Your task to perform on an android device: check the backup settings in the google photos Image 0: 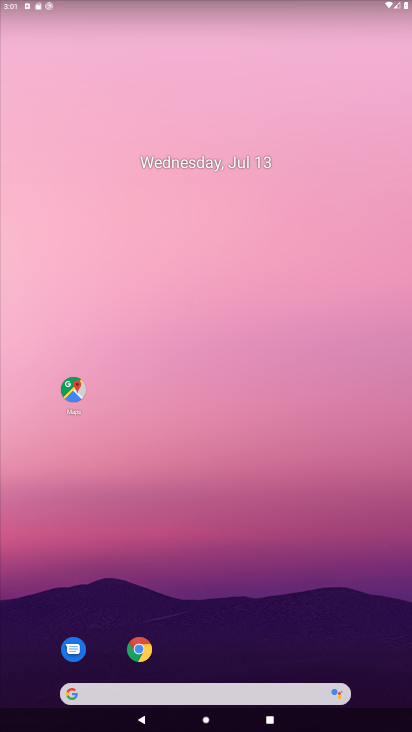
Step 0: press home button
Your task to perform on an android device: check the backup settings in the google photos Image 1: 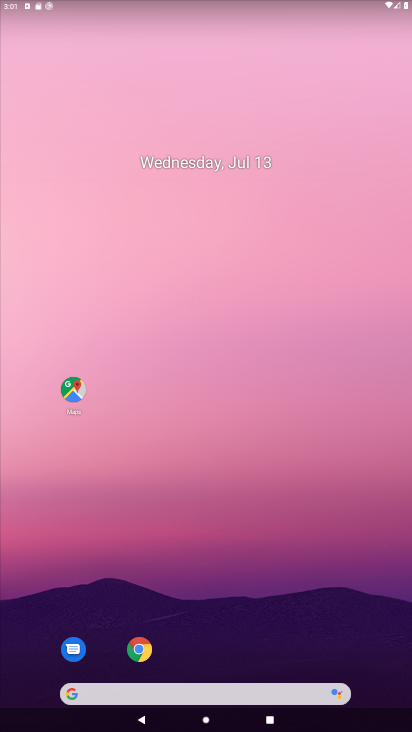
Step 1: drag from (206, 652) to (202, 81)
Your task to perform on an android device: check the backup settings in the google photos Image 2: 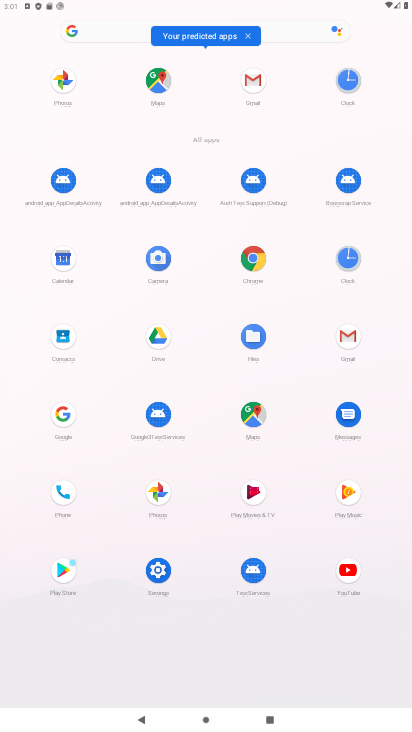
Step 2: click (151, 489)
Your task to perform on an android device: check the backup settings in the google photos Image 3: 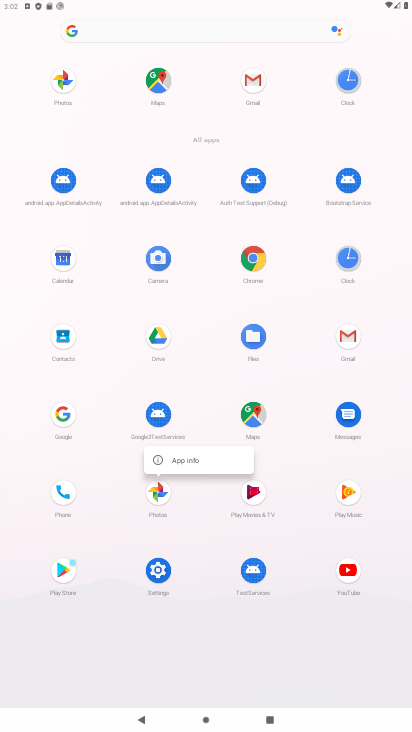
Step 3: click (152, 486)
Your task to perform on an android device: check the backup settings in the google photos Image 4: 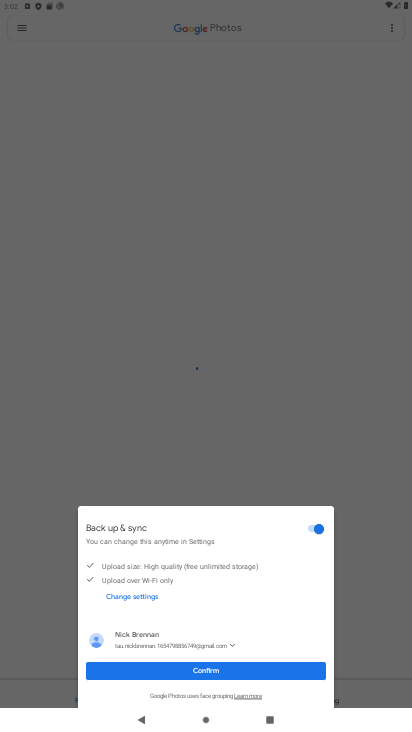
Step 4: click (188, 667)
Your task to perform on an android device: check the backup settings in the google photos Image 5: 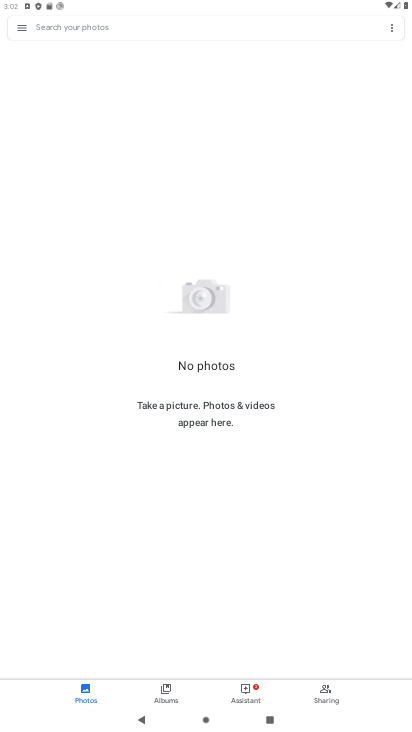
Step 5: click (20, 24)
Your task to perform on an android device: check the backup settings in the google photos Image 6: 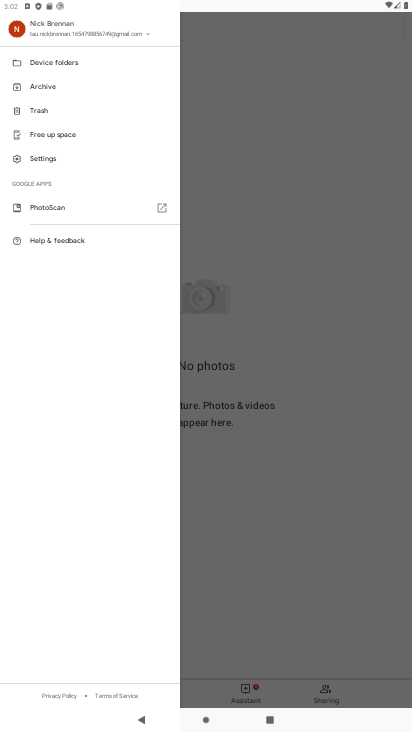
Step 6: click (58, 157)
Your task to perform on an android device: check the backup settings in the google photos Image 7: 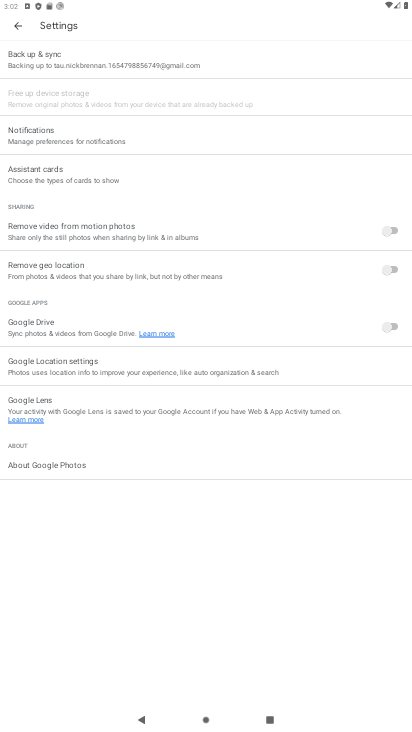
Step 7: task complete